Your task to perform on an android device: Open Google Chrome and click the shortcut for Amazon.com Image 0: 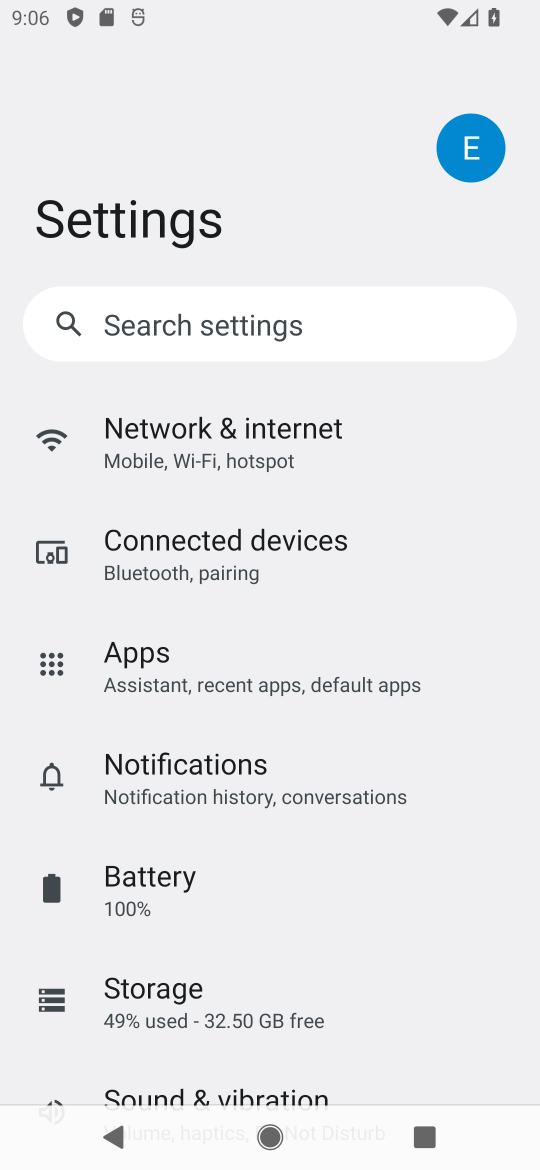
Step 0: press home button
Your task to perform on an android device: Open Google Chrome and click the shortcut for Amazon.com Image 1: 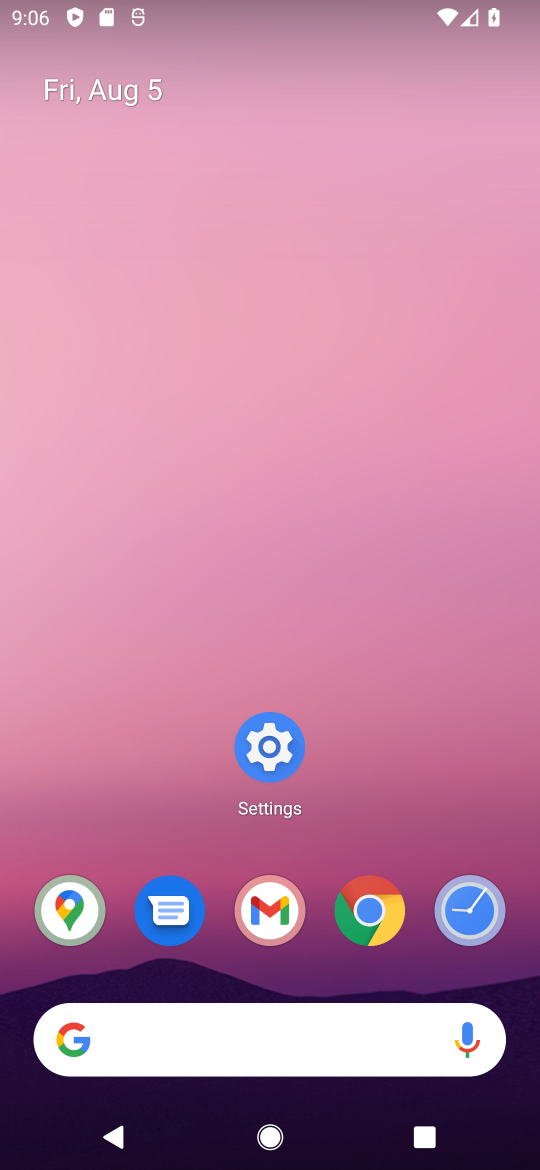
Step 1: click (370, 905)
Your task to perform on an android device: Open Google Chrome and click the shortcut for Amazon.com Image 2: 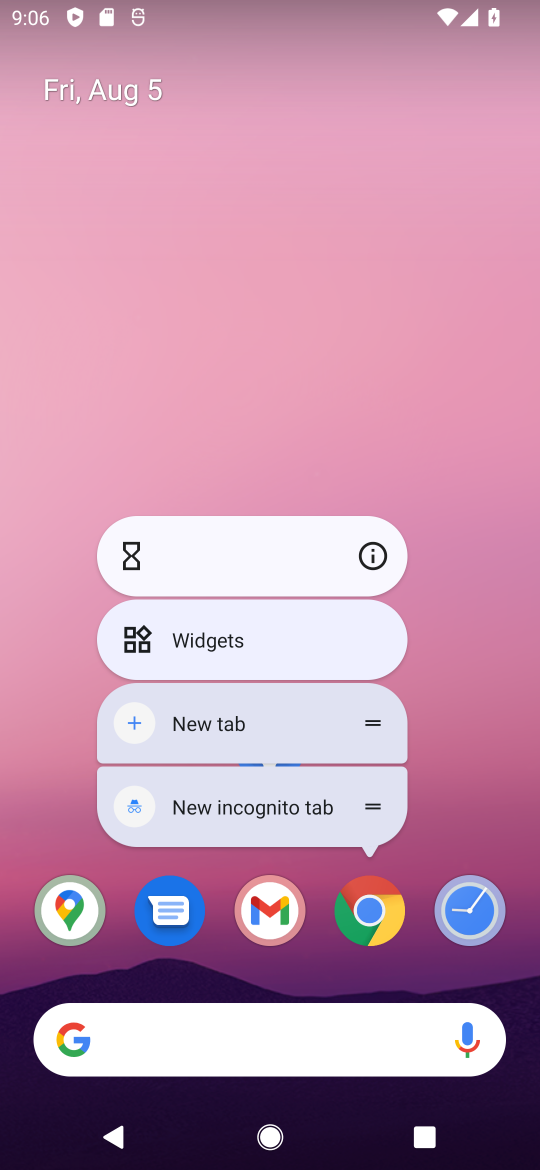
Step 2: click (370, 906)
Your task to perform on an android device: Open Google Chrome and click the shortcut for Amazon.com Image 3: 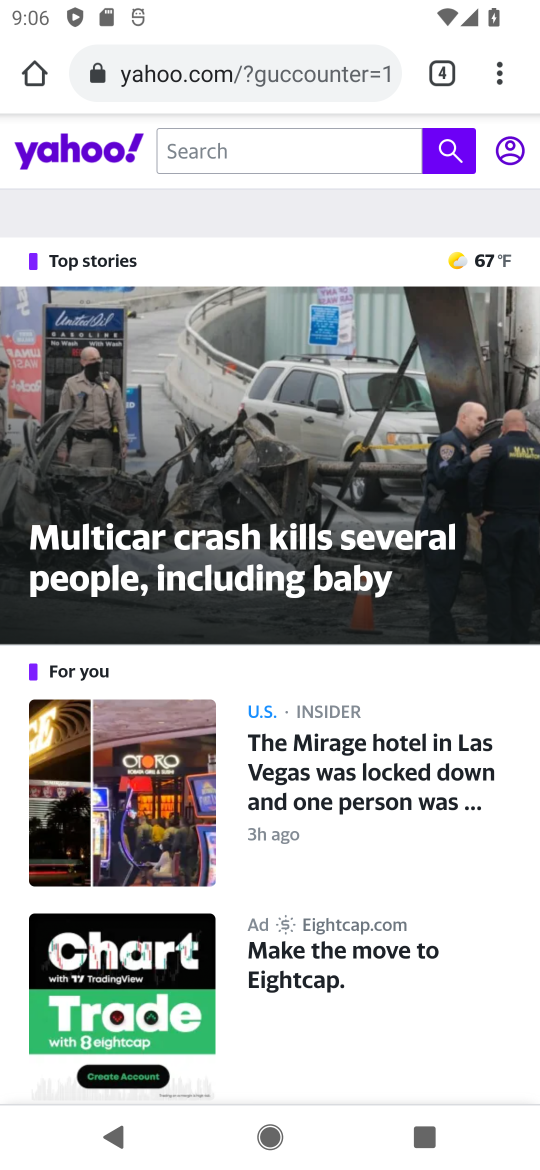
Step 3: drag from (494, 74) to (277, 245)
Your task to perform on an android device: Open Google Chrome and click the shortcut for Amazon.com Image 4: 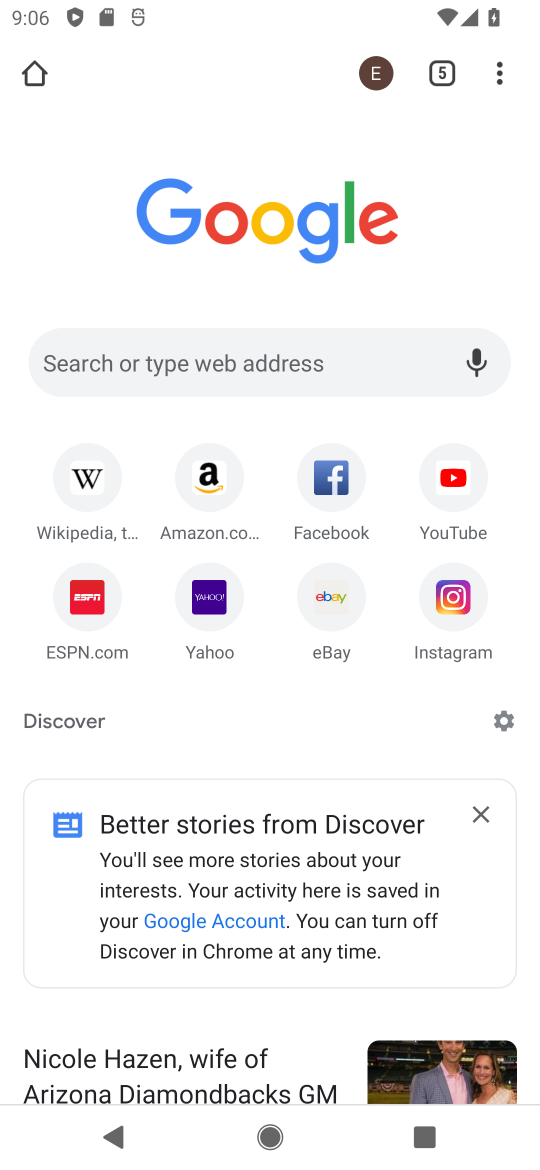
Step 4: click (207, 483)
Your task to perform on an android device: Open Google Chrome and click the shortcut for Amazon.com Image 5: 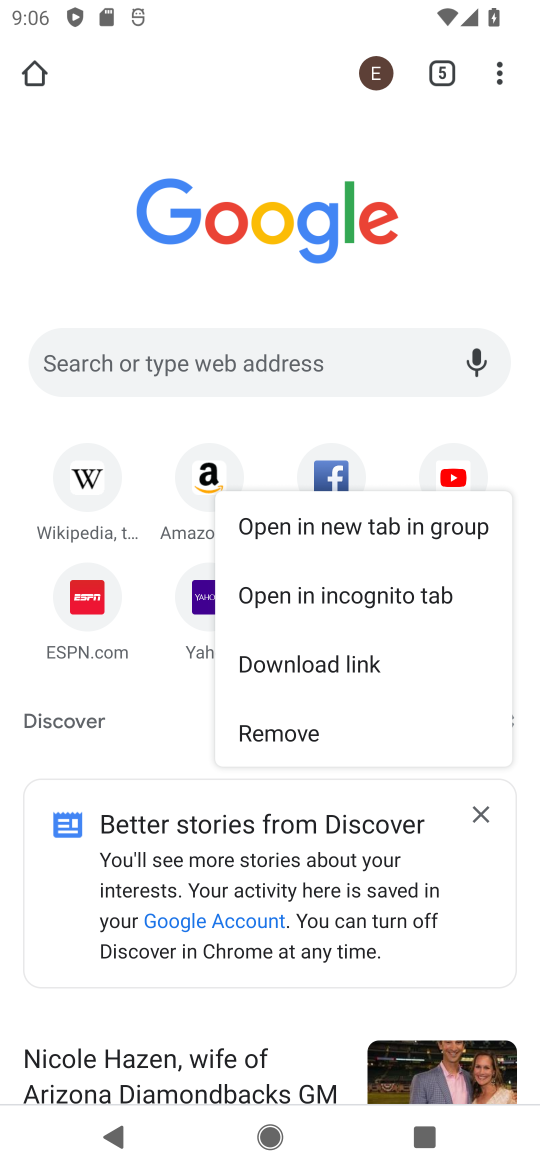
Step 5: click (208, 475)
Your task to perform on an android device: Open Google Chrome and click the shortcut for Amazon.com Image 6: 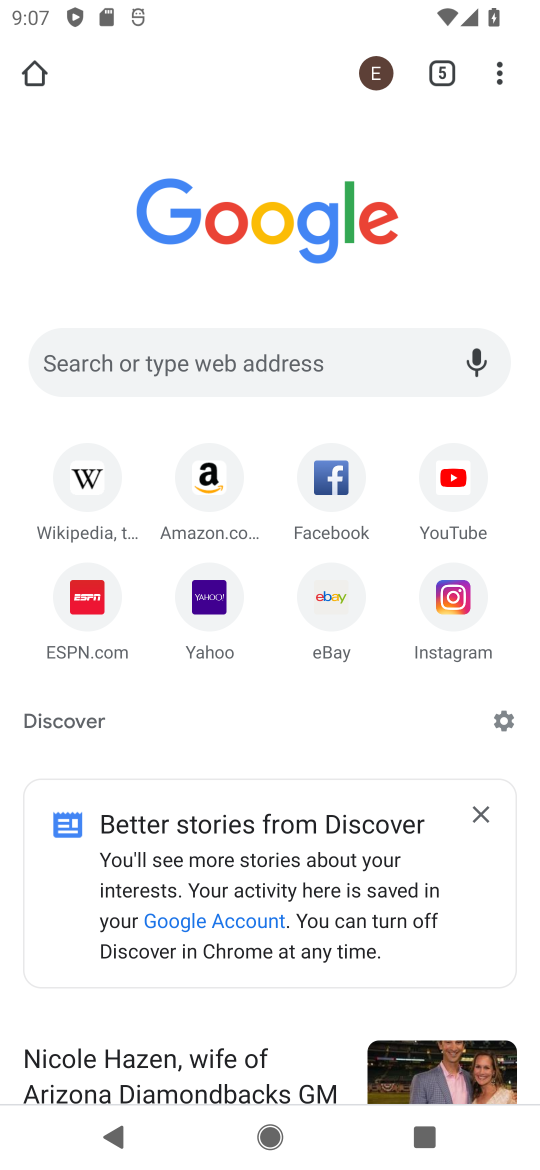
Step 6: click (208, 476)
Your task to perform on an android device: Open Google Chrome and click the shortcut for Amazon.com Image 7: 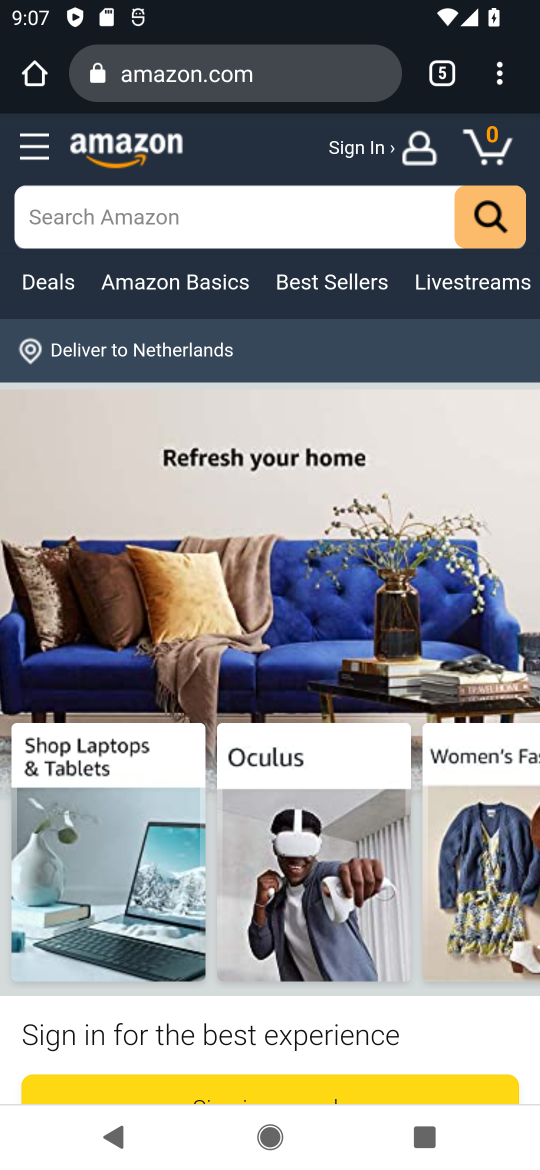
Step 7: task complete